Your task to perform on an android device: delete browsing data in the chrome app Image 0: 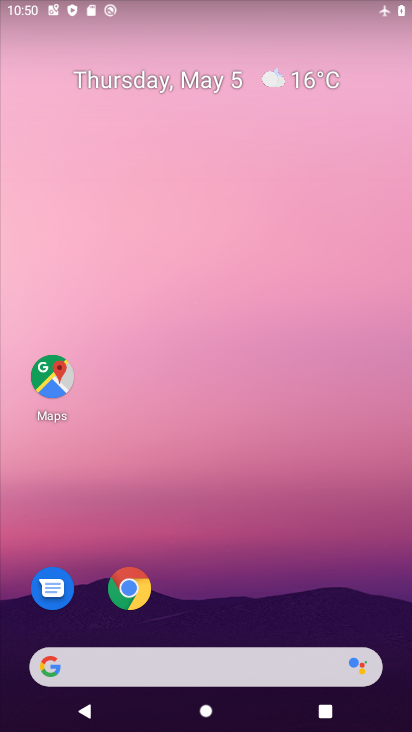
Step 0: drag from (240, 611) to (294, 106)
Your task to perform on an android device: delete browsing data in the chrome app Image 1: 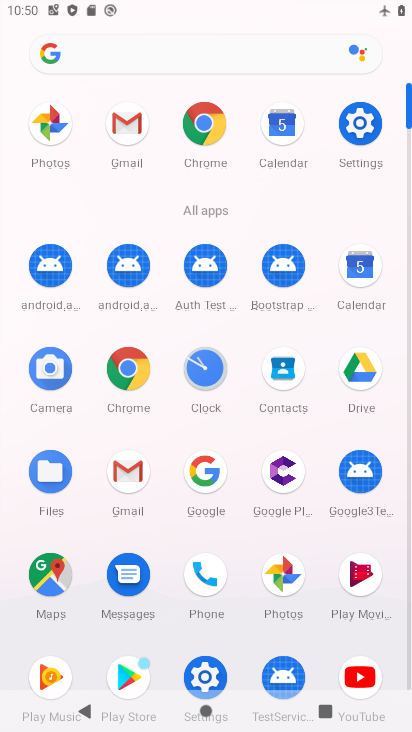
Step 1: click (212, 143)
Your task to perform on an android device: delete browsing data in the chrome app Image 2: 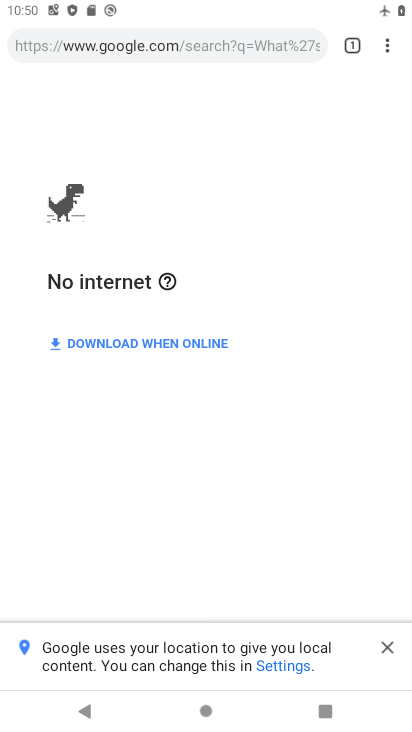
Step 2: drag from (385, 69) to (276, 252)
Your task to perform on an android device: delete browsing data in the chrome app Image 3: 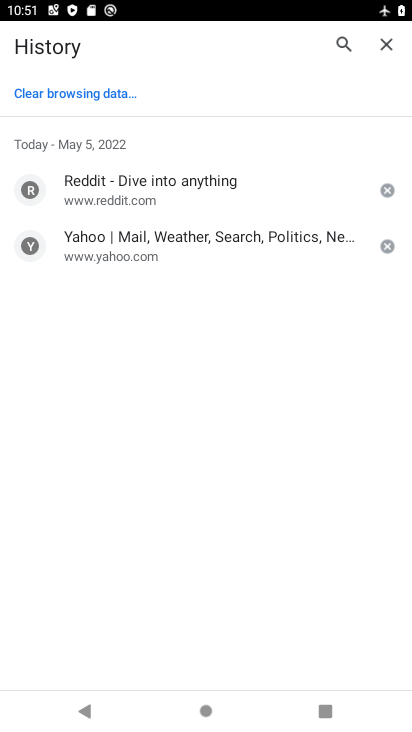
Step 3: click (66, 95)
Your task to perform on an android device: delete browsing data in the chrome app Image 4: 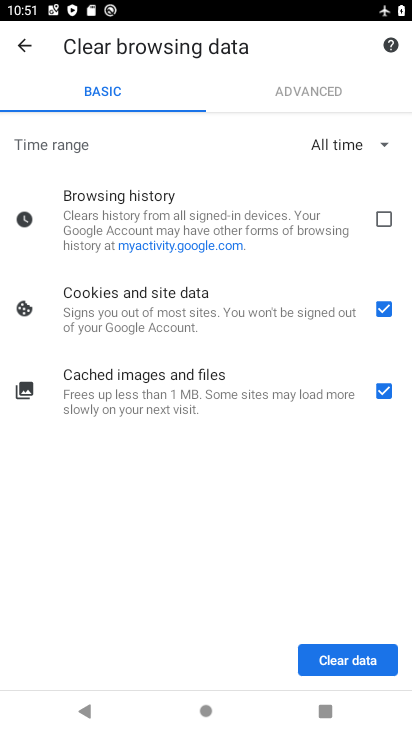
Step 4: click (385, 235)
Your task to perform on an android device: delete browsing data in the chrome app Image 5: 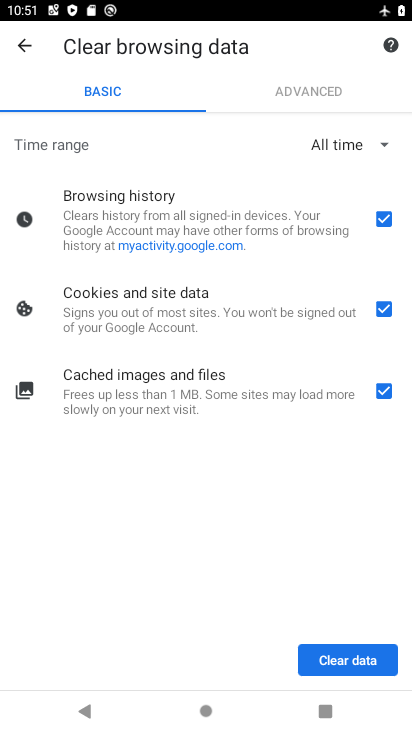
Step 5: click (385, 390)
Your task to perform on an android device: delete browsing data in the chrome app Image 6: 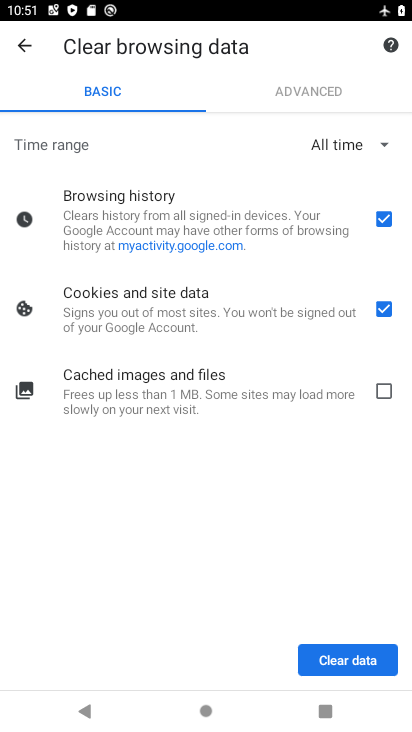
Step 6: click (379, 306)
Your task to perform on an android device: delete browsing data in the chrome app Image 7: 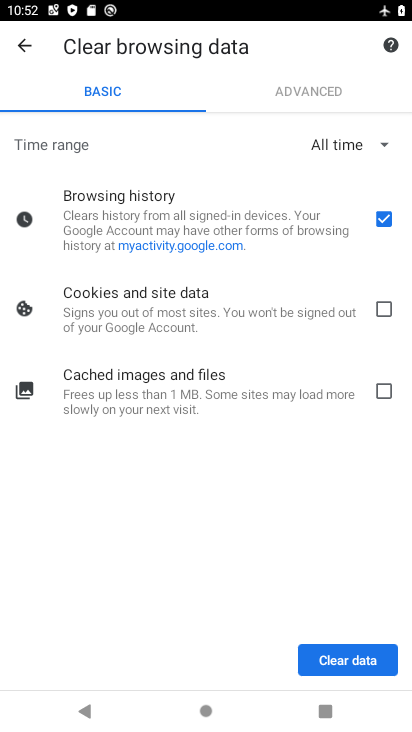
Step 7: click (343, 659)
Your task to perform on an android device: delete browsing data in the chrome app Image 8: 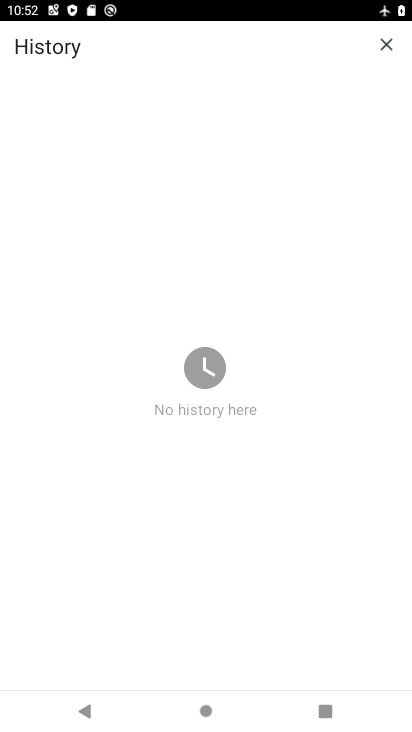
Step 8: task complete